Your task to perform on an android device: Show me productivity apps on the Play Store Image 0: 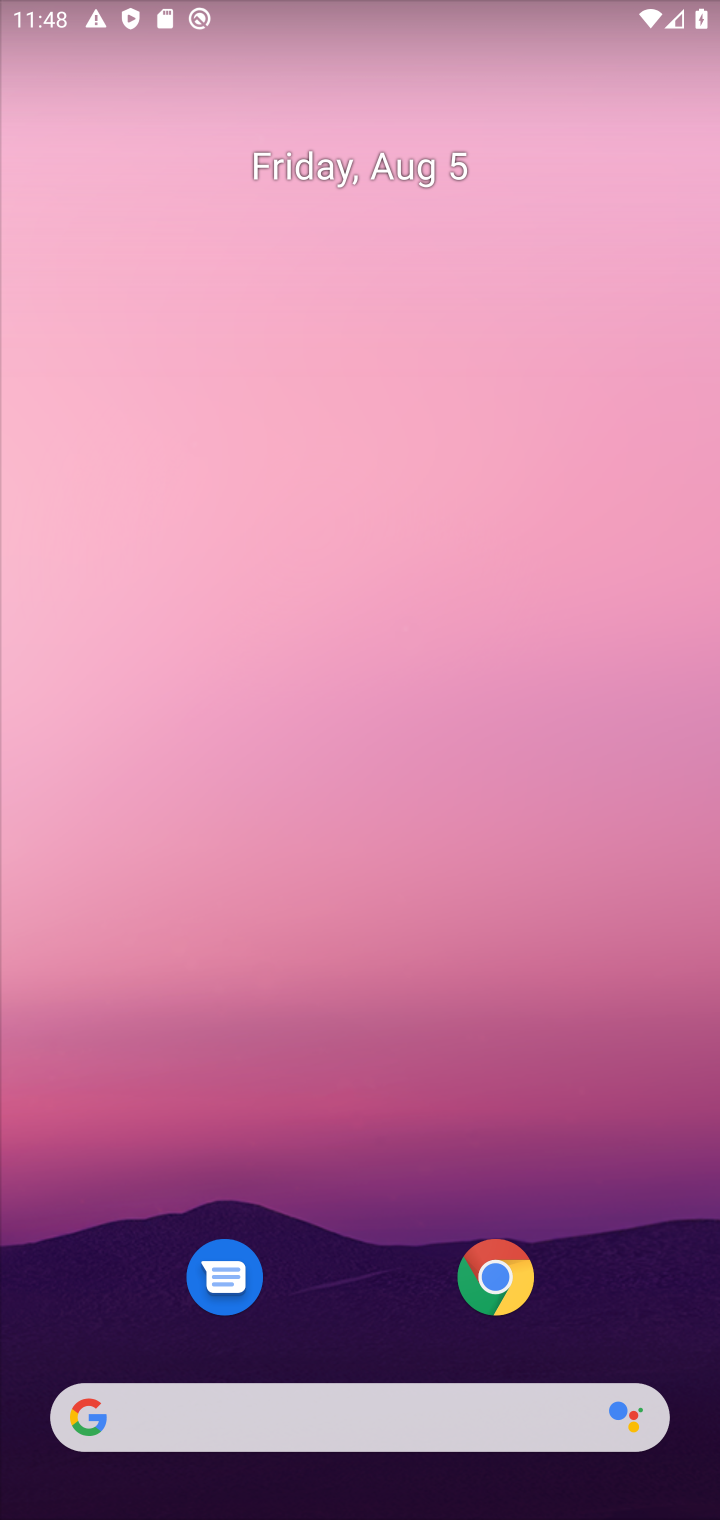
Step 0: press home button
Your task to perform on an android device: Show me productivity apps on the Play Store Image 1: 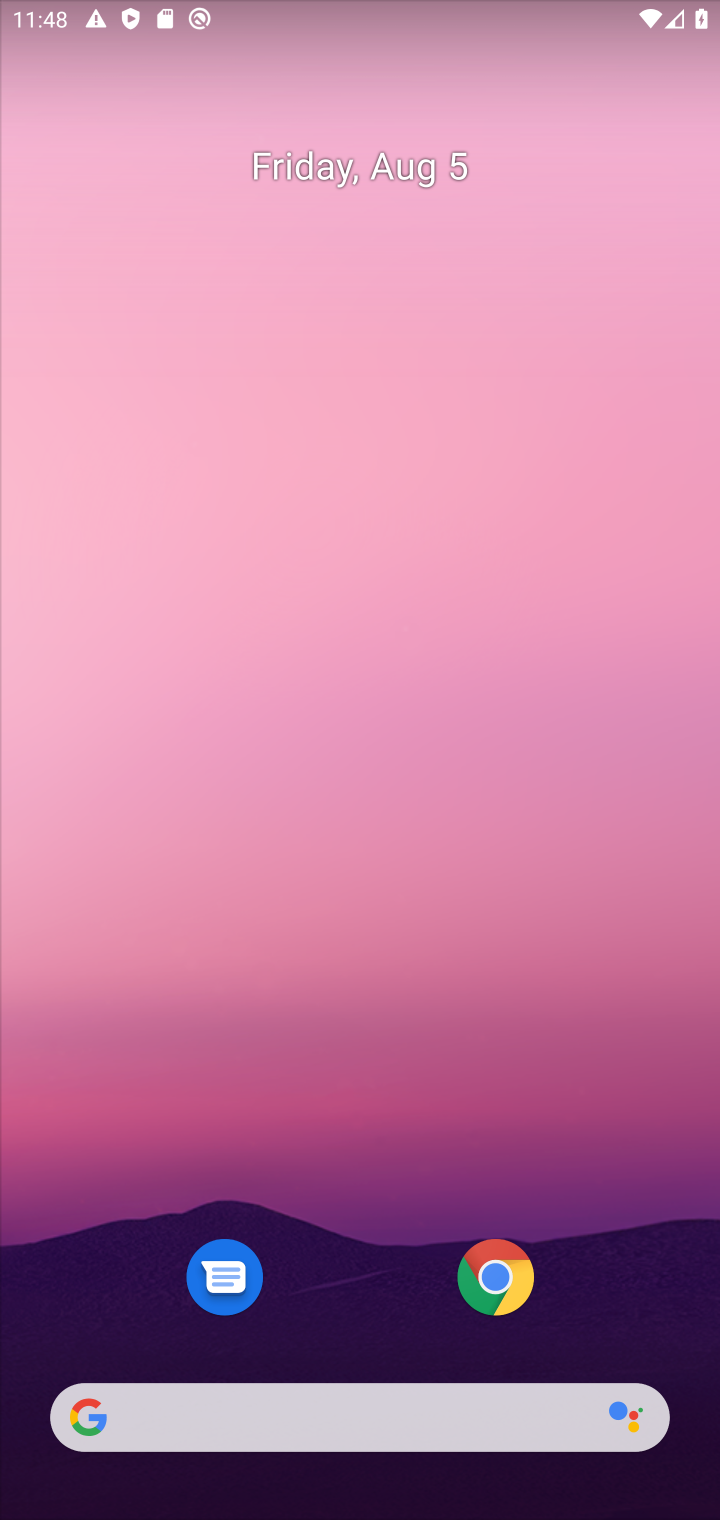
Step 1: drag from (357, 1343) to (624, 365)
Your task to perform on an android device: Show me productivity apps on the Play Store Image 2: 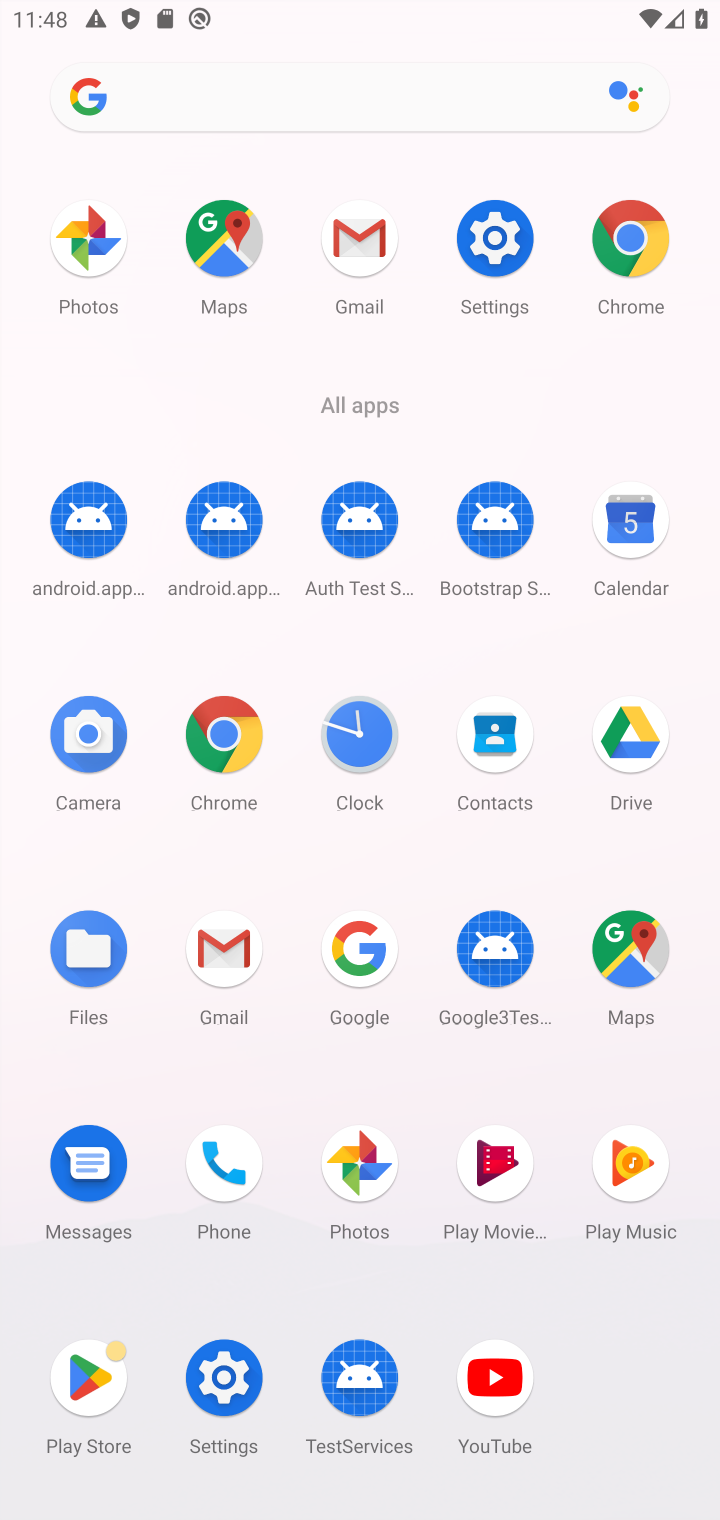
Step 2: click (80, 1377)
Your task to perform on an android device: Show me productivity apps on the Play Store Image 3: 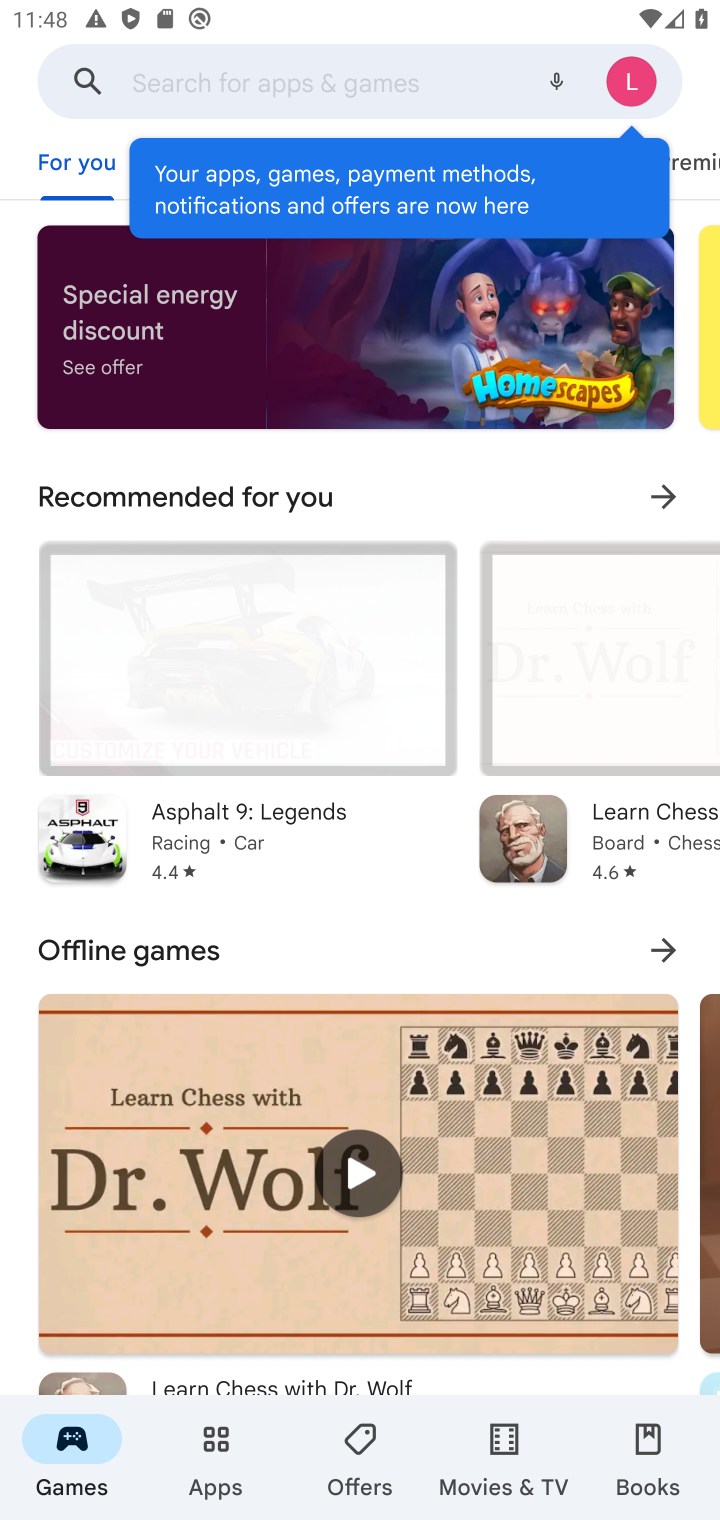
Step 3: click (213, 1442)
Your task to perform on an android device: Show me productivity apps on the Play Store Image 4: 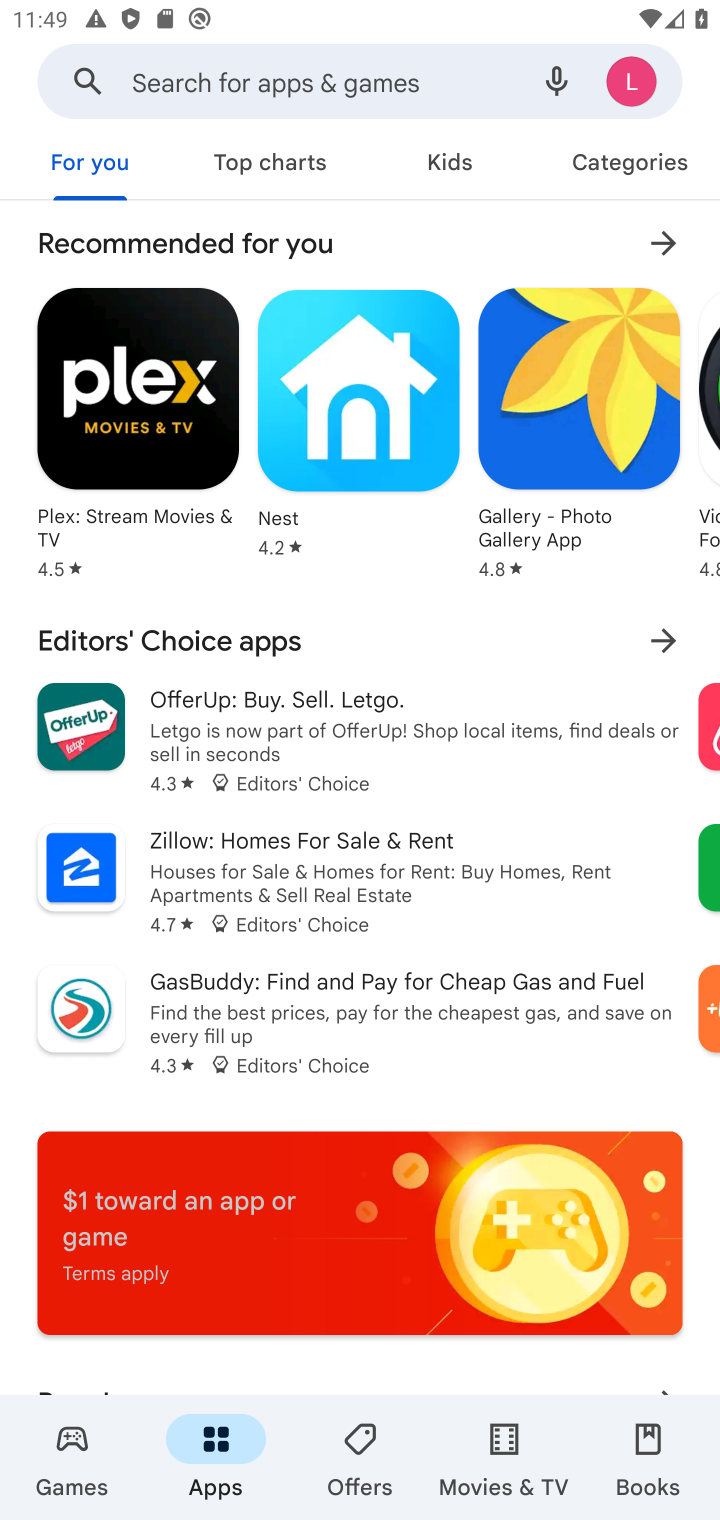
Step 4: click (660, 157)
Your task to perform on an android device: Show me productivity apps on the Play Store Image 5: 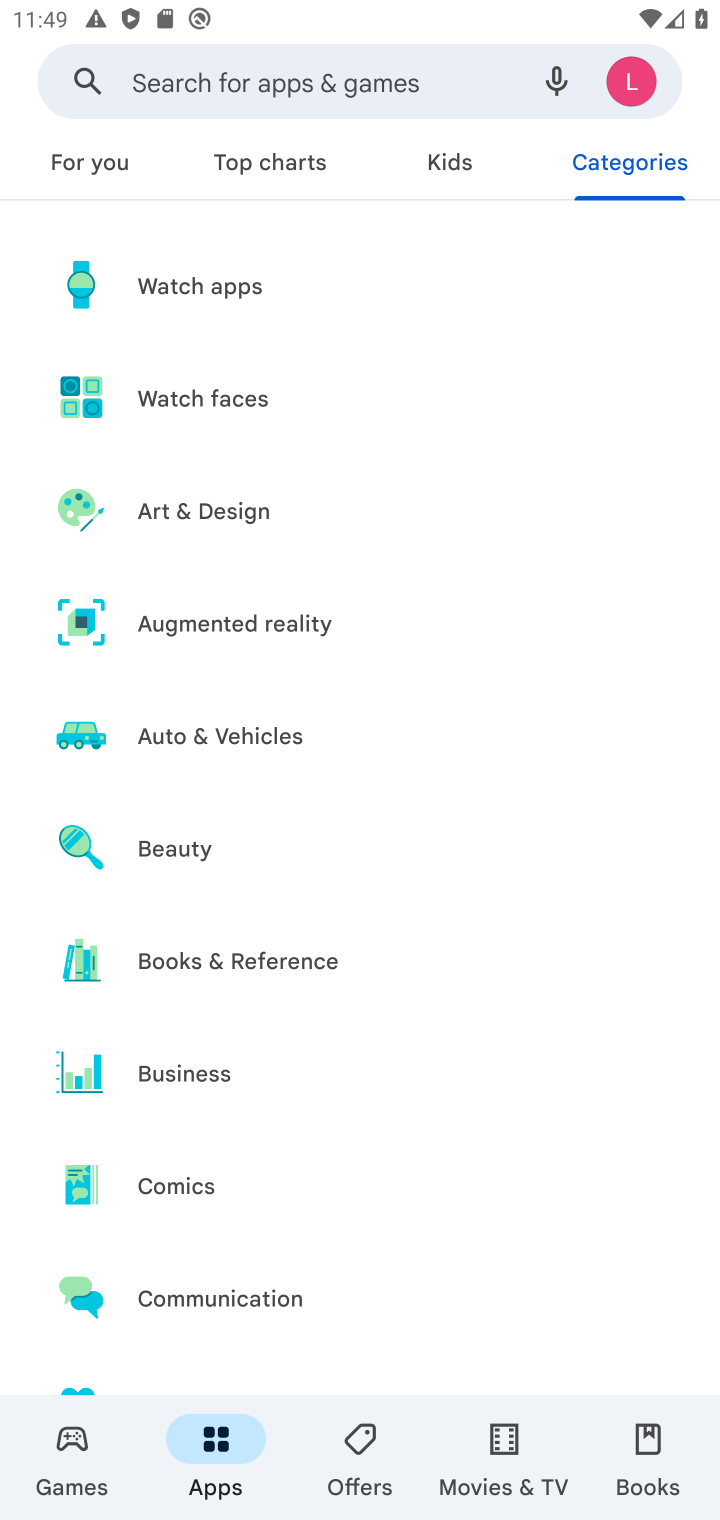
Step 5: drag from (422, 1192) to (633, 160)
Your task to perform on an android device: Show me productivity apps on the Play Store Image 6: 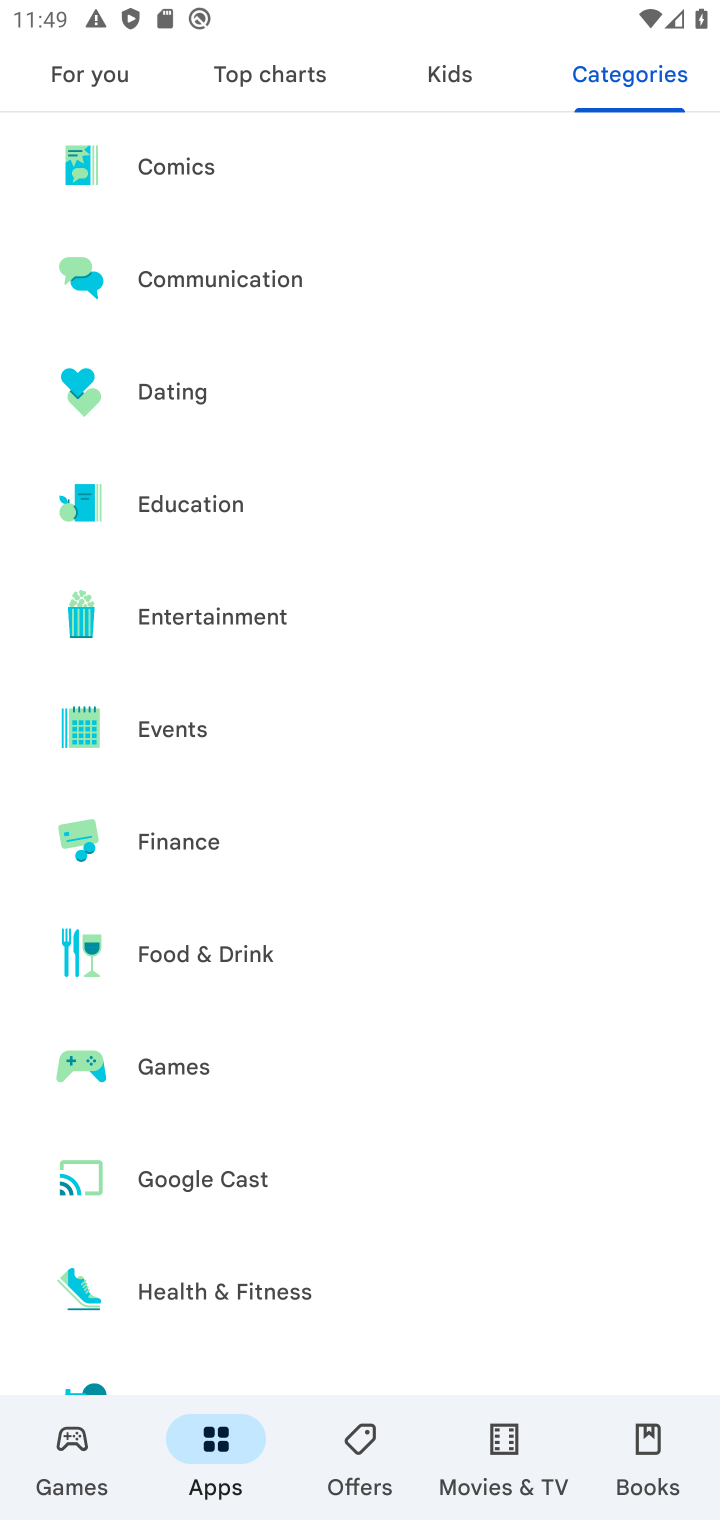
Step 6: drag from (440, 1200) to (687, 219)
Your task to perform on an android device: Show me productivity apps on the Play Store Image 7: 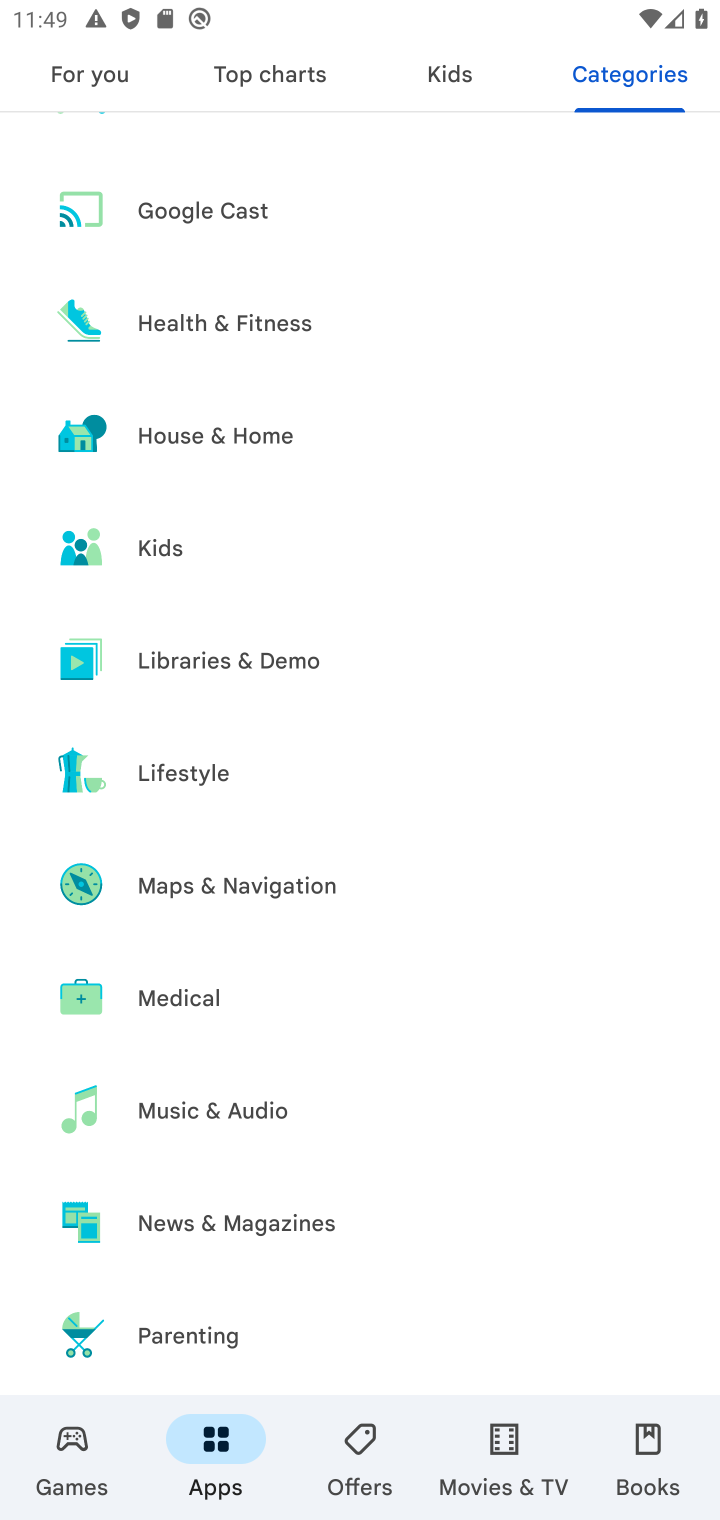
Step 7: drag from (449, 1190) to (666, 158)
Your task to perform on an android device: Show me productivity apps on the Play Store Image 8: 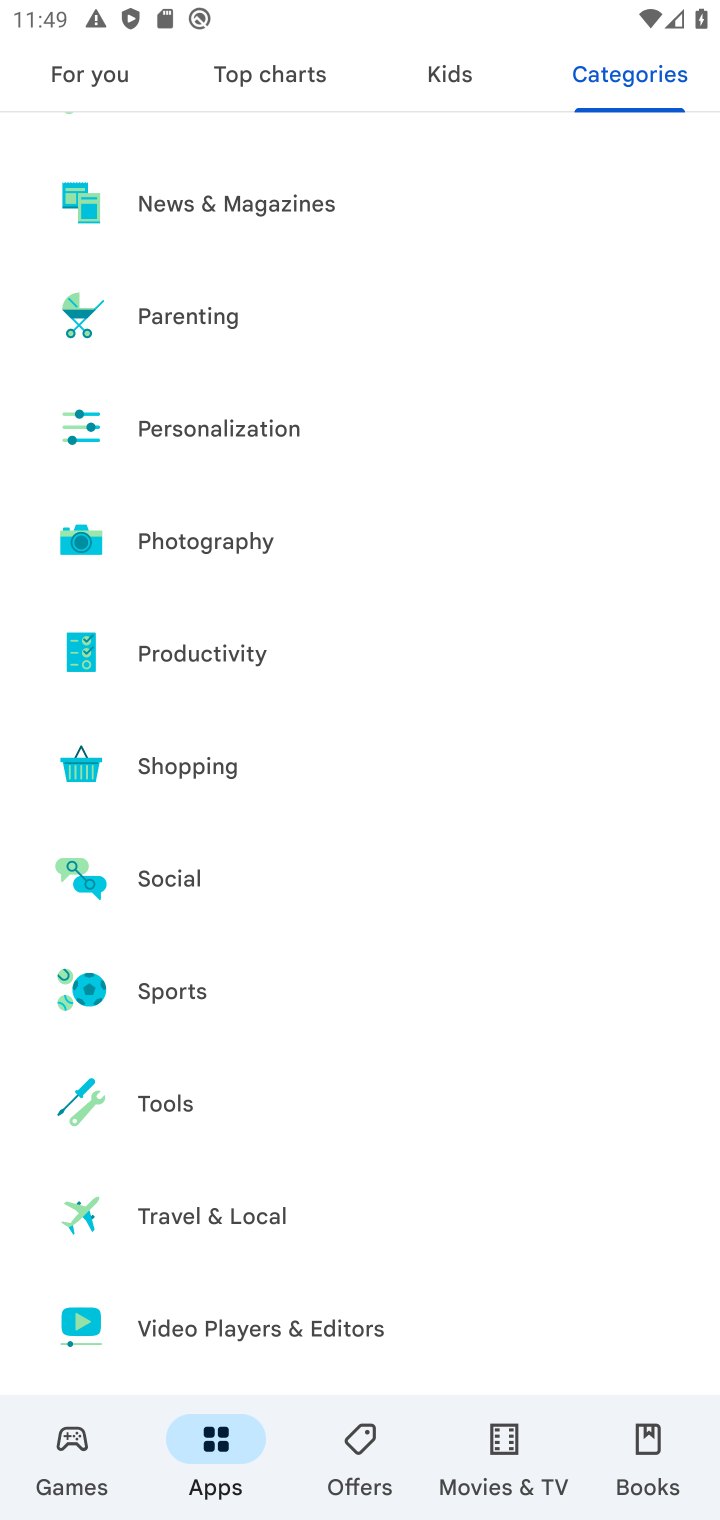
Step 8: click (233, 647)
Your task to perform on an android device: Show me productivity apps on the Play Store Image 9: 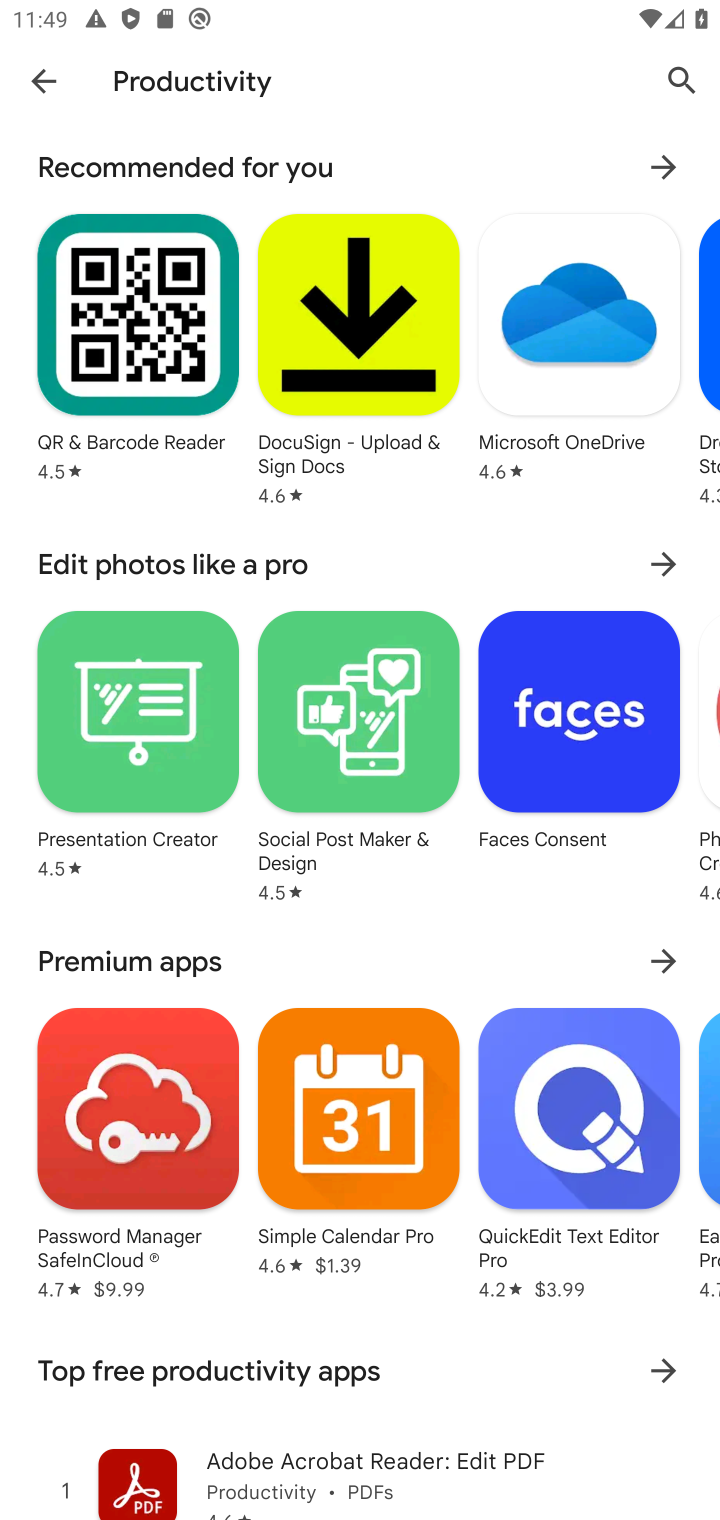
Step 9: task complete